Your task to perform on an android device: Is it going to rain tomorrow? Image 0: 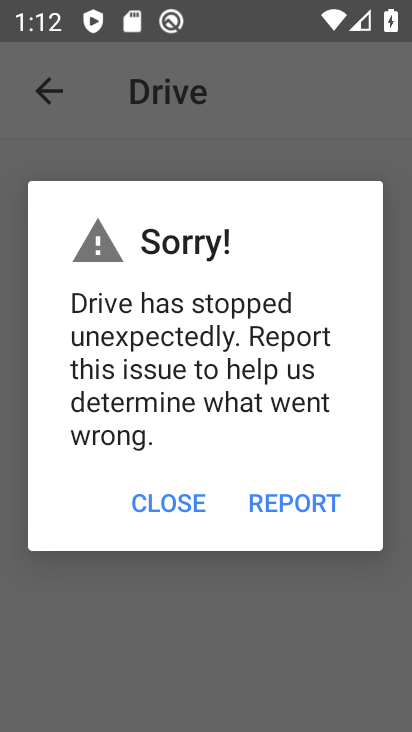
Step 0: drag from (219, 443) to (262, 263)
Your task to perform on an android device: Is it going to rain tomorrow? Image 1: 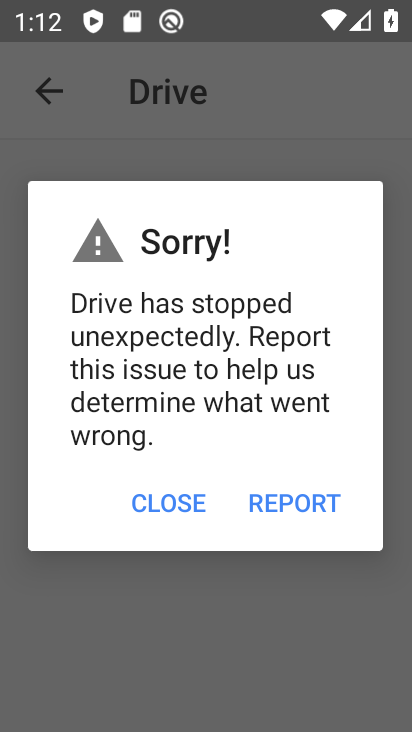
Step 1: drag from (229, 436) to (255, 187)
Your task to perform on an android device: Is it going to rain tomorrow? Image 2: 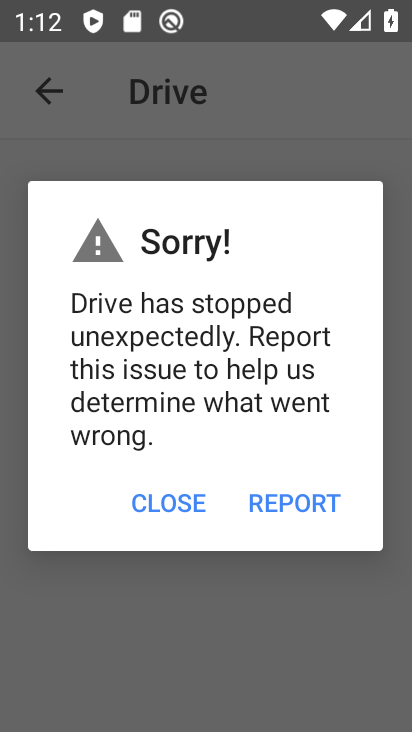
Step 2: drag from (245, 435) to (290, 272)
Your task to perform on an android device: Is it going to rain tomorrow? Image 3: 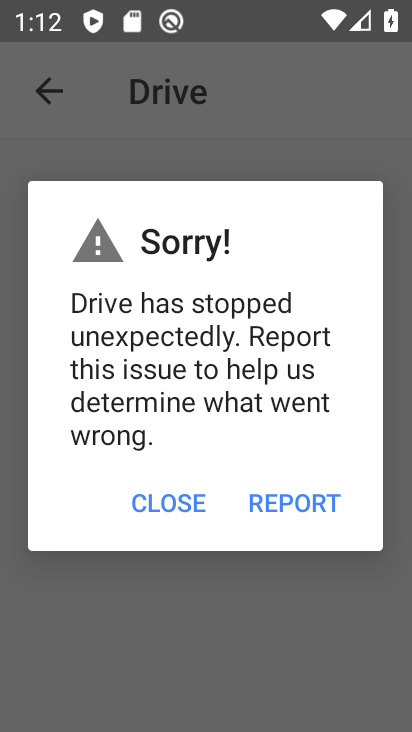
Step 3: drag from (206, 633) to (246, 399)
Your task to perform on an android device: Is it going to rain tomorrow? Image 4: 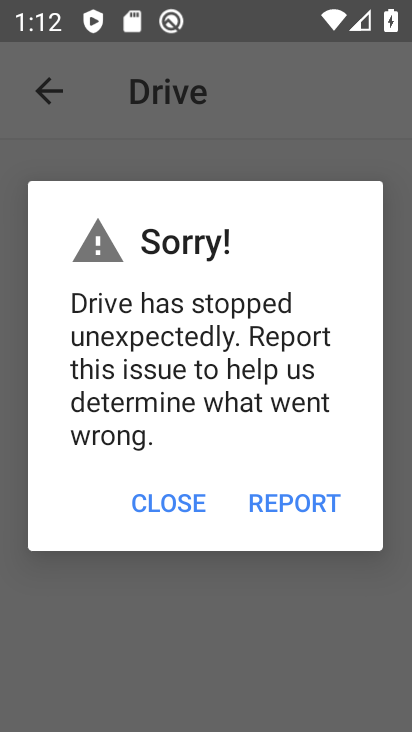
Step 4: click (158, 483)
Your task to perform on an android device: Is it going to rain tomorrow? Image 5: 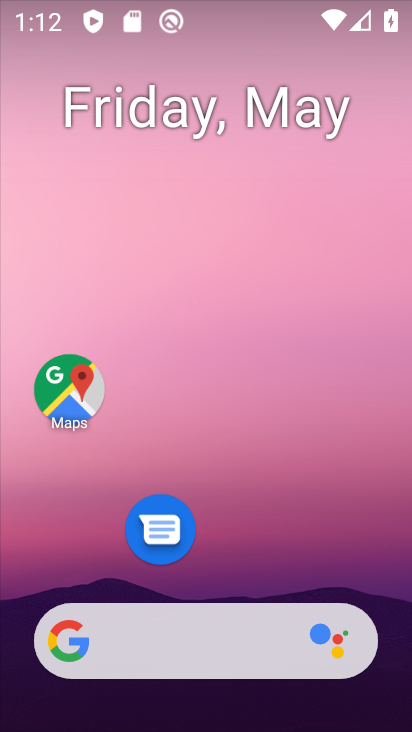
Step 5: drag from (217, 568) to (265, 274)
Your task to perform on an android device: Is it going to rain tomorrow? Image 6: 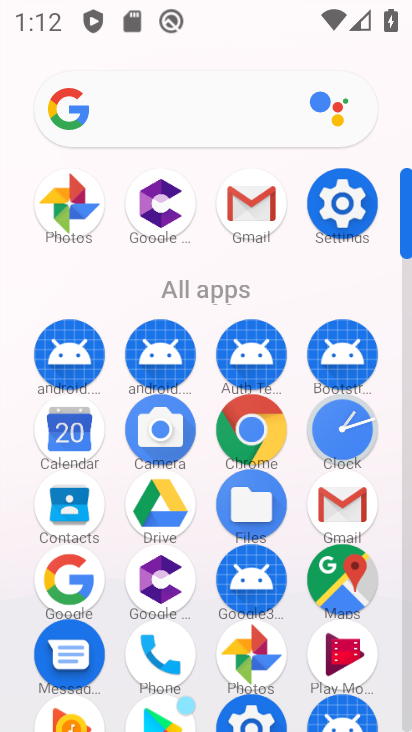
Step 6: type "rain tomorrow?"
Your task to perform on an android device: Is it going to rain tomorrow? Image 7: 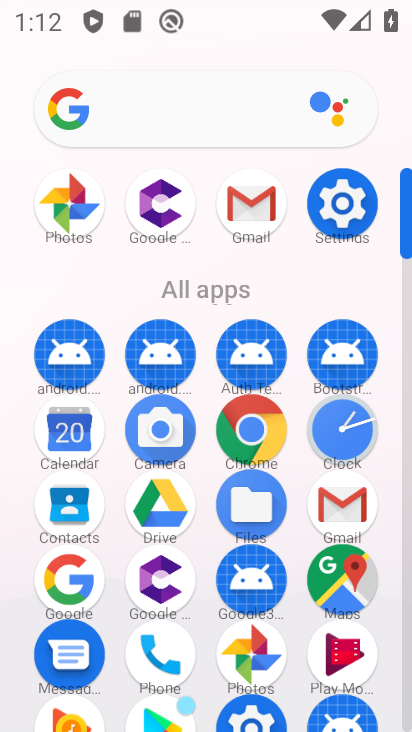
Step 7: click (189, 122)
Your task to perform on an android device: Is it going to rain tomorrow? Image 8: 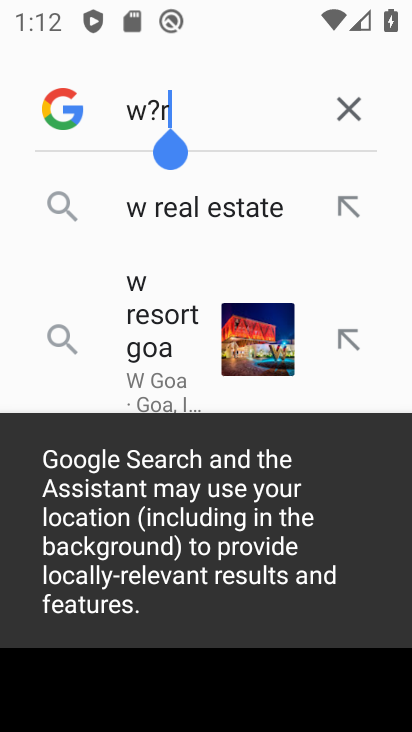
Step 8: type "rain tomorrow?"
Your task to perform on an android device: Is it going to rain tomorrow? Image 9: 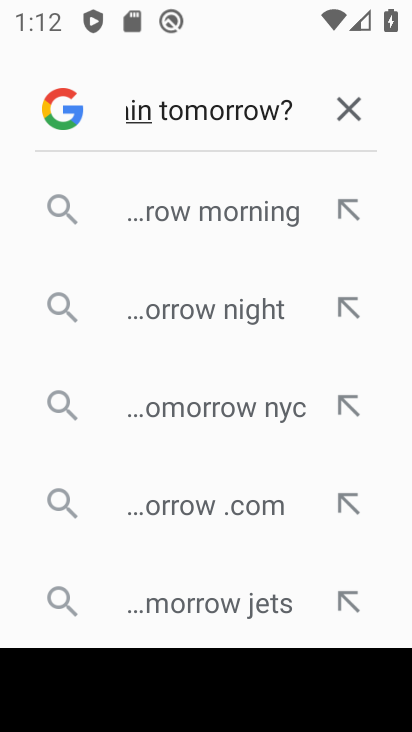
Step 9: click (345, 113)
Your task to perform on an android device: Is it going to rain tomorrow? Image 10: 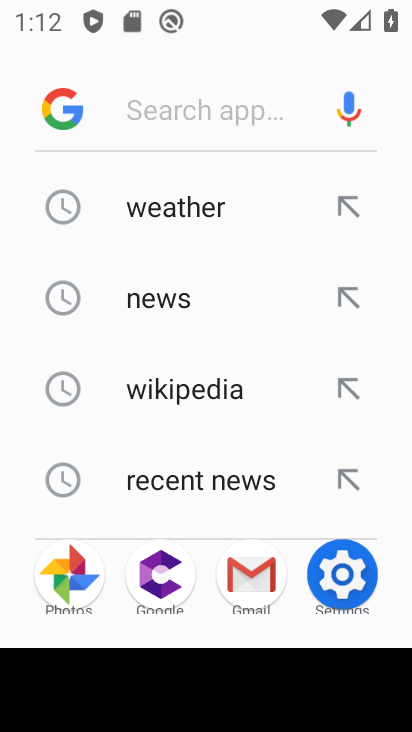
Step 10: type "rain tomorrow?"
Your task to perform on an android device: Is it going to rain tomorrow? Image 11: 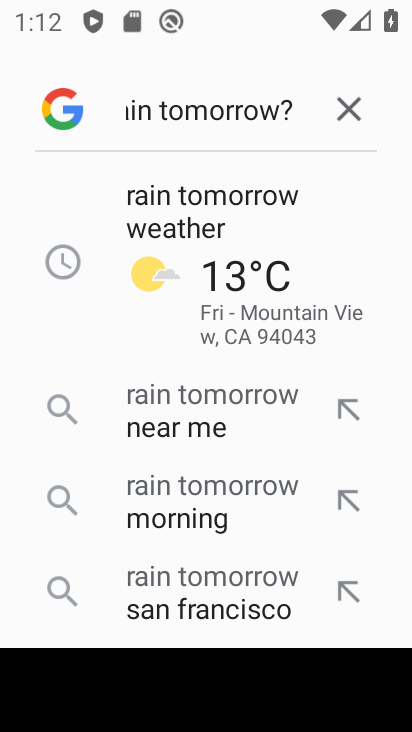
Step 11: click (217, 222)
Your task to perform on an android device: Is it going to rain tomorrow? Image 12: 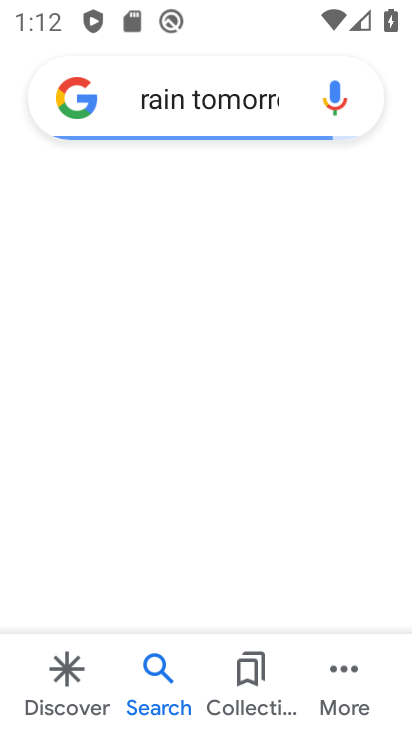
Step 12: task complete